Your task to perform on an android device: Find coffee shops on Maps Image 0: 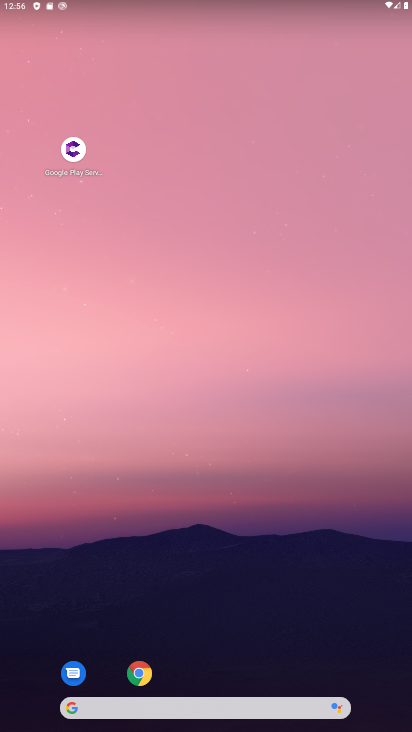
Step 0: drag from (286, 635) to (298, 76)
Your task to perform on an android device: Find coffee shops on Maps Image 1: 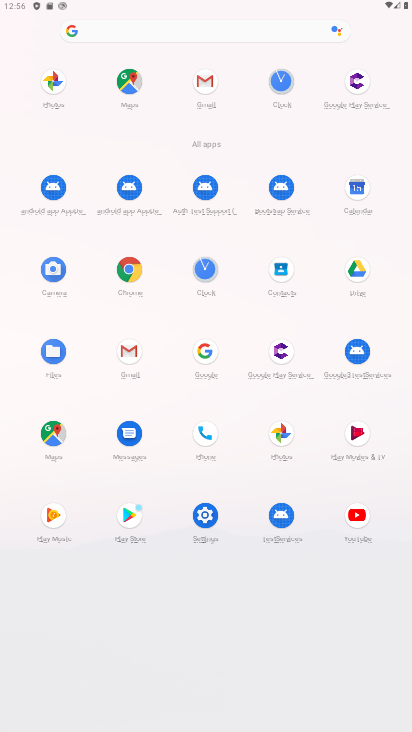
Step 1: click (61, 436)
Your task to perform on an android device: Find coffee shops on Maps Image 2: 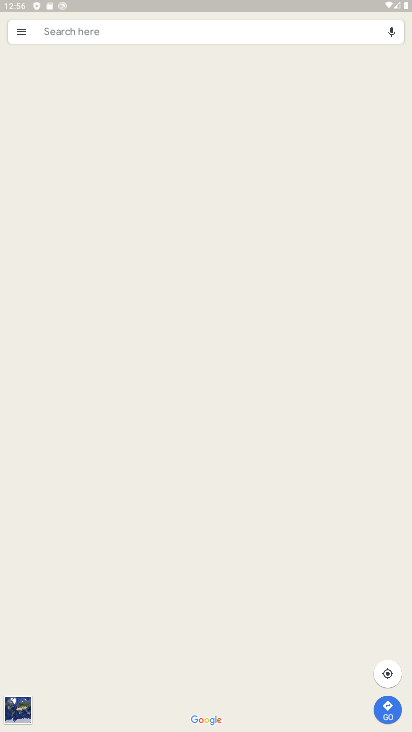
Step 2: click (151, 31)
Your task to perform on an android device: Find coffee shops on Maps Image 3: 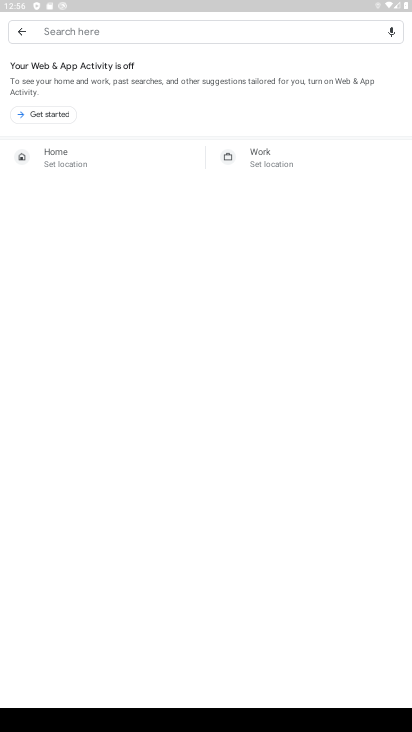
Step 3: click (221, 30)
Your task to perform on an android device: Find coffee shops on Maps Image 4: 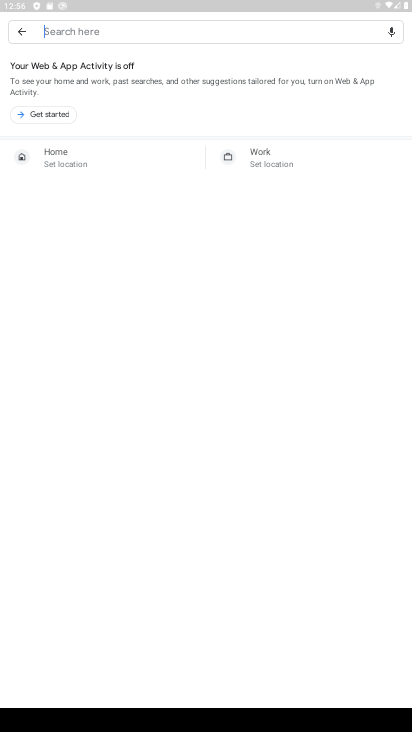
Step 4: type "coffee shops"
Your task to perform on an android device: Find coffee shops on Maps Image 5: 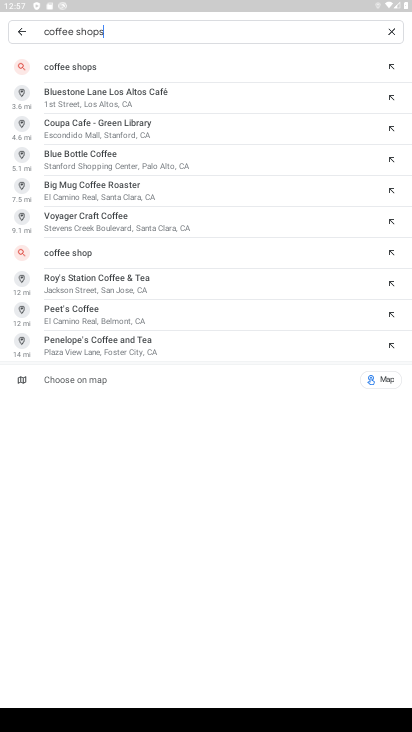
Step 5: click (117, 64)
Your task to perform on an android device: Find coffee shops on Maps Image 6: 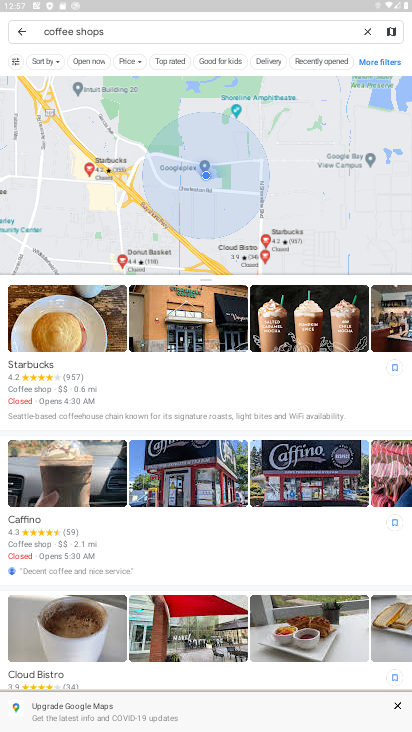
Step 6: task complete